Your task to perform on an android device: Open settings on Google Maps Image 0: 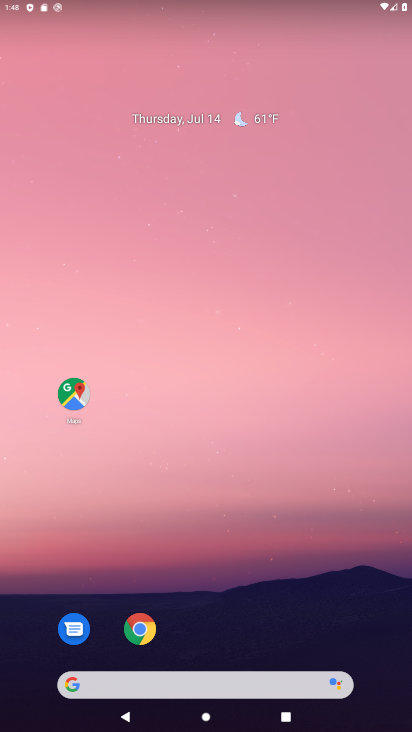
Step 0: click (74, 393)
Your task to perform on an android device: Open settings on Google Maps Image 1: 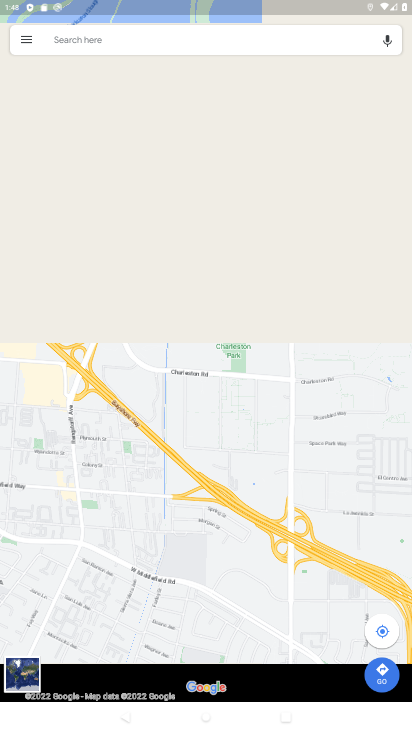
Step 1: click (26, 41)
Your task to perform on an android device: Open settings on Google Maps Image 2: 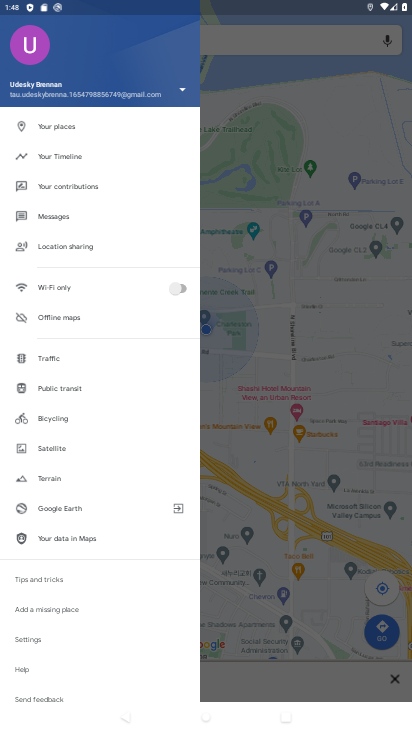
Step 2: click (50, 635)
Your task to perform on an android device: Open settings on Google Maps Image 3: 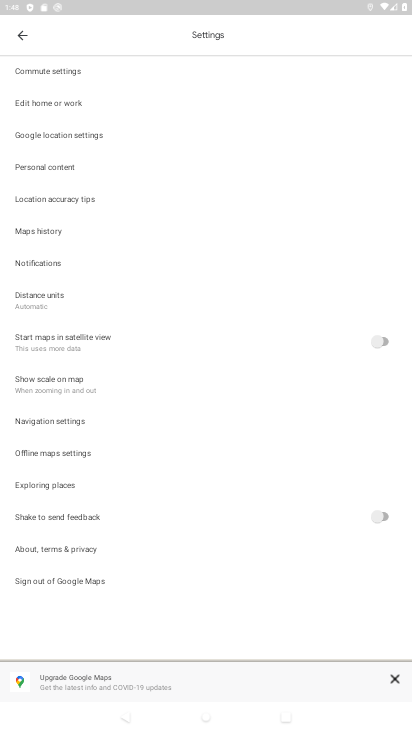
Step 3: task complete